Your task to perform on an android device: toggle javascript in the chrome app Image 0: 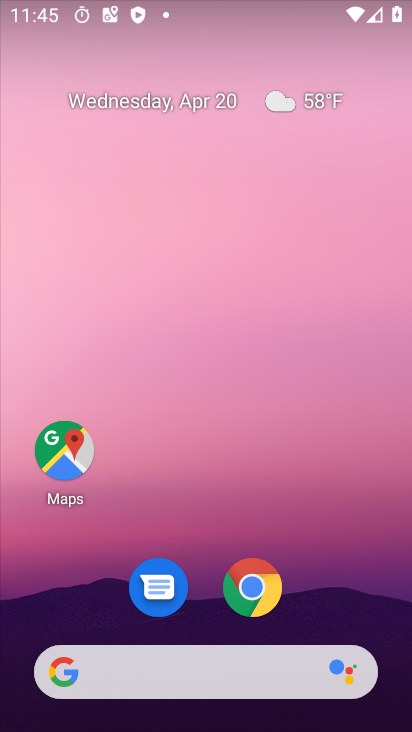
Step 0: click (252, 581)
Your task to perform on an android device: toggle javascript in the chrome app Image 1: 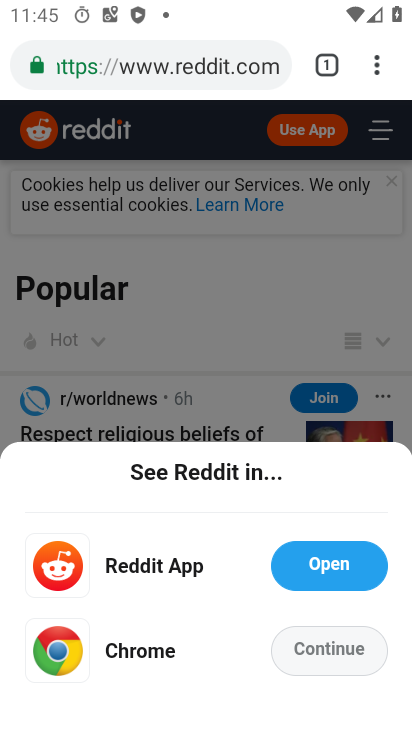
Step 1: click (334, 651)
Your task to perform on an android device: toggle javascript in the chrome app Image 2: 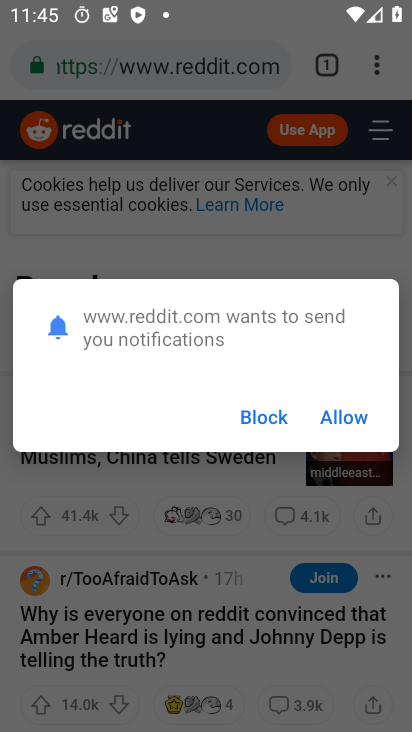
Step 2: click (367, 68)
Your task to perform on an android device: toggle javascript in the chrome app Image 3: 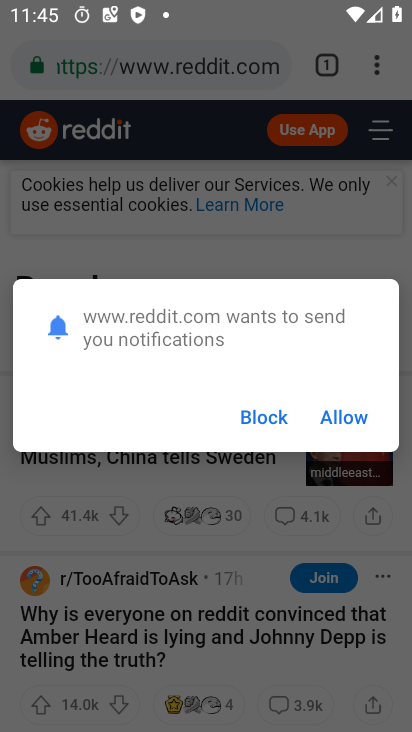
Step 3: click (267, 416)
Your task to perform on an android device: toggle javascript in the chrome app Image 4: 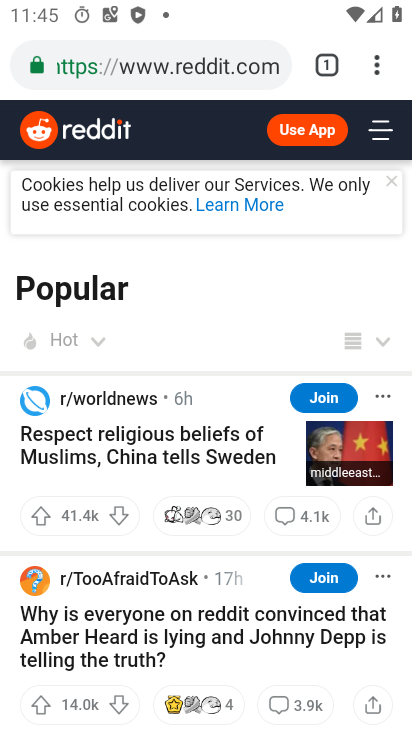
Step 4: click (370, 65)
Your task to perform on an android device: toggle javascript in the chrome app Image 5: 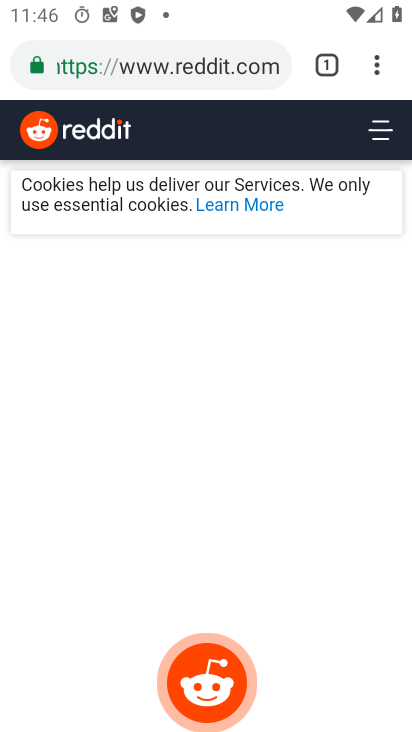
Step 5: click (381, 72)
Your task to perform on an android device: toggle javascript in the chrome app Image 6: 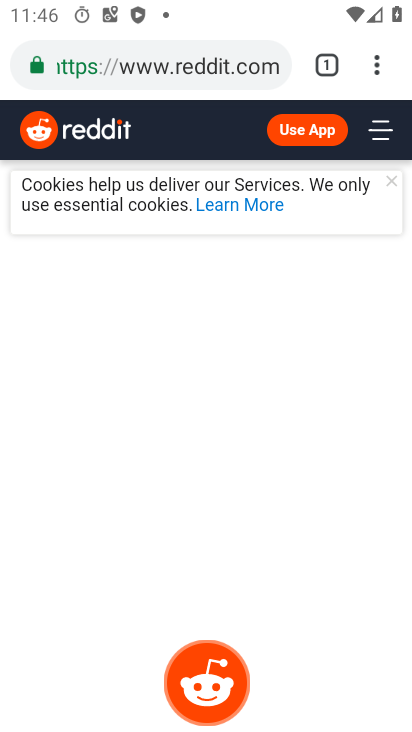
Step 6: click (378, 69)
Your task to perform on an android device: toggle javascript in the chrome app Image 7: 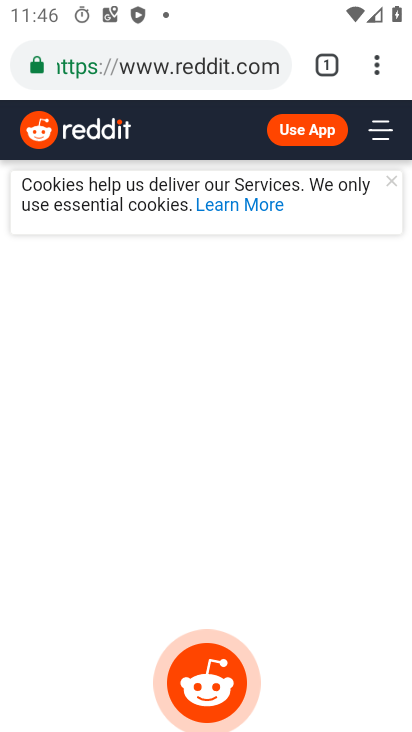
Step 7: click (376, 71)
Your task to perform on an android device: toggle javascript in the chrome app Image 8: 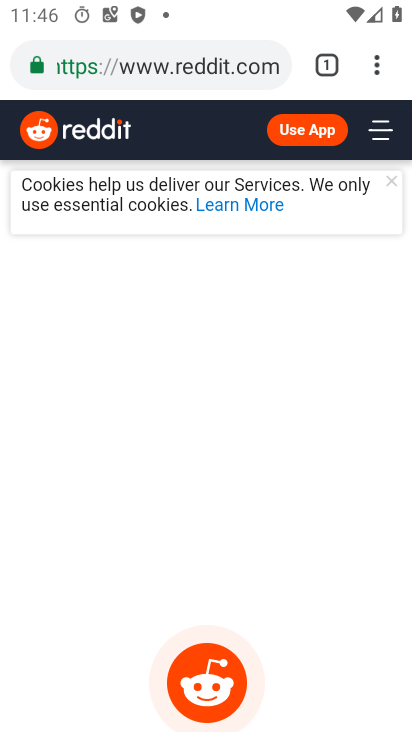
Step 8: click (375, 82)
Your task to perform on an android device: toggle javascript in the chrome app Image 9: 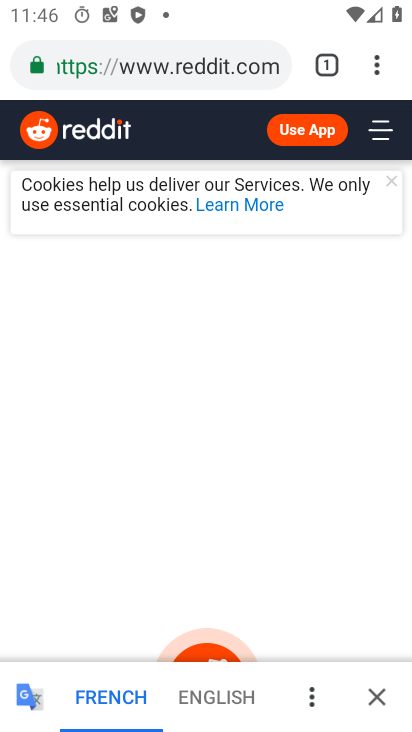
Step 9: click (377, 59)
Your task to perform on an android device: toggle javascript in the chrome app Image 10: 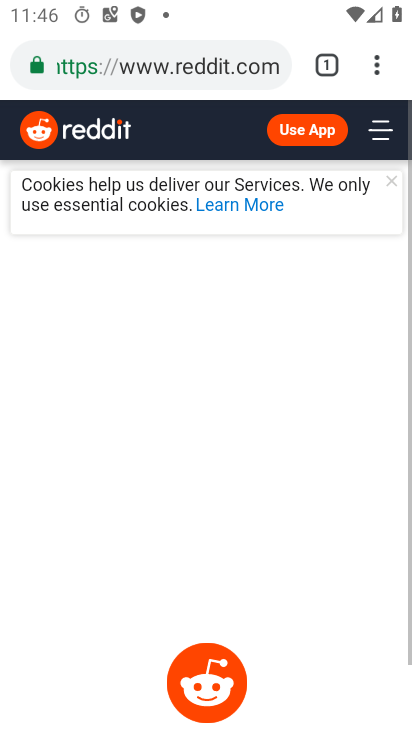
Step 10: click (379, 66)
Your task to perform on an android device: toggle javascript in the chrome app Image 11: 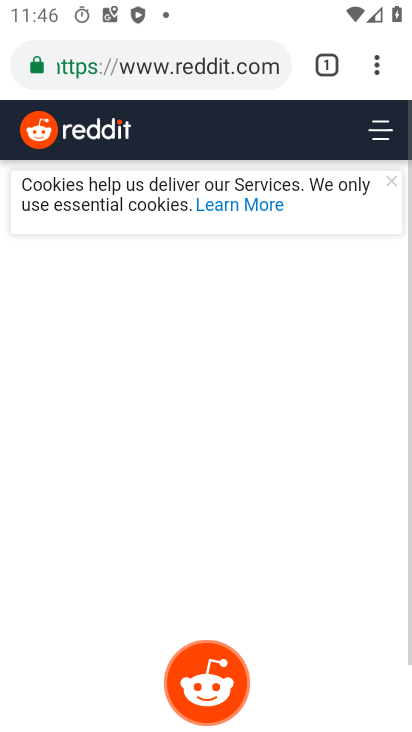
Step 11: click (380, 70)
Your task to perform on an android device: toggle javascript in the chrome app Image 12: 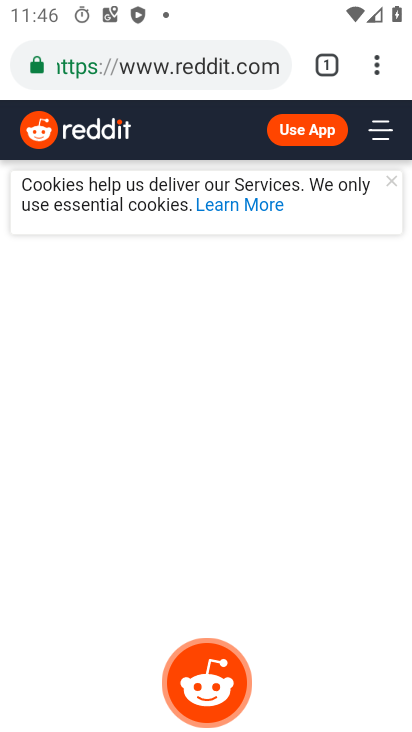
Step 12: click (364, 65)
Your task to perform on an android device: toggle javascript in the chrome app Image 13: 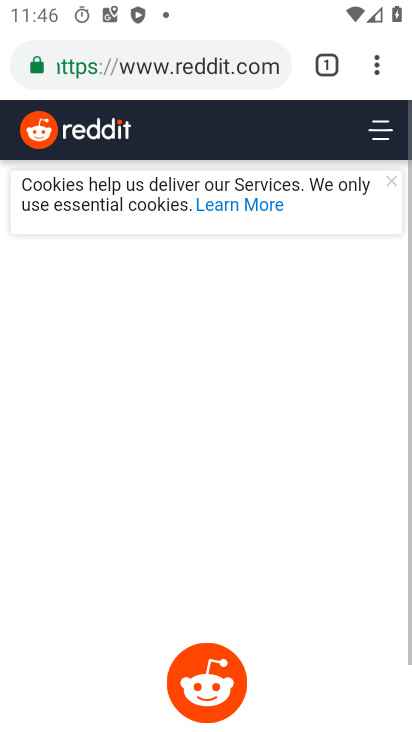
Step 13: click (378, 69)
Your task to perform on an android device: toggle javascript in the chrome app Image 14: 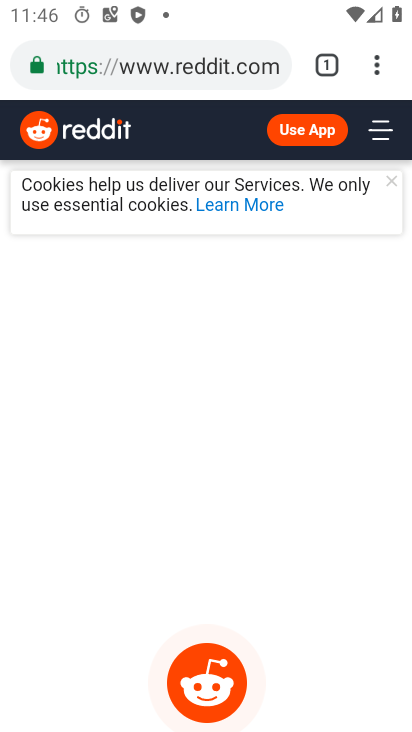
Step 14: click (378, 66)
Your task to perform on an android device: toggle javascript in the chrome app Image 15: 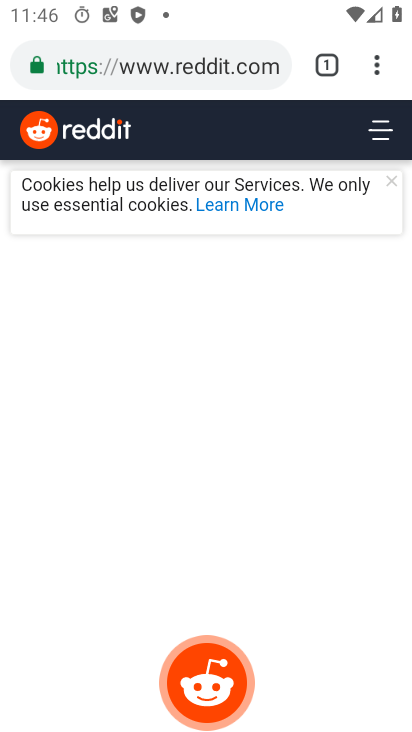
Step 15: click (393, 74)
Your task to perform on an android device: toggle javascript in the chrome app Image 16: 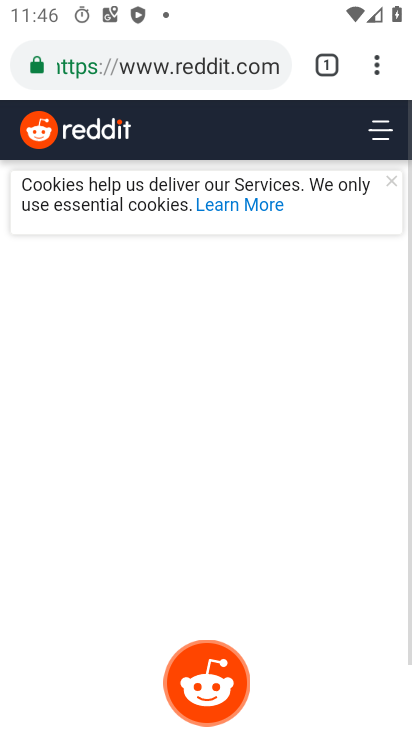
Step 16: click (398, 77)
Your task to perform on an android device: toggle javascript in the chrome app Image 17: 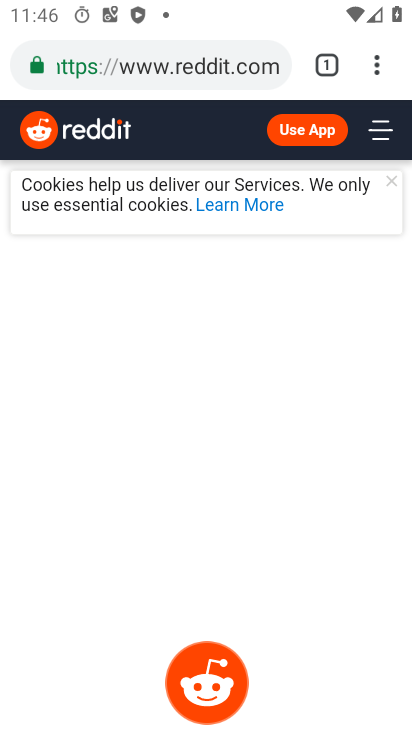
Step 17: click (392, 77)
Your task to perform on an android device: toggle javascript in the chrome app Image 18: 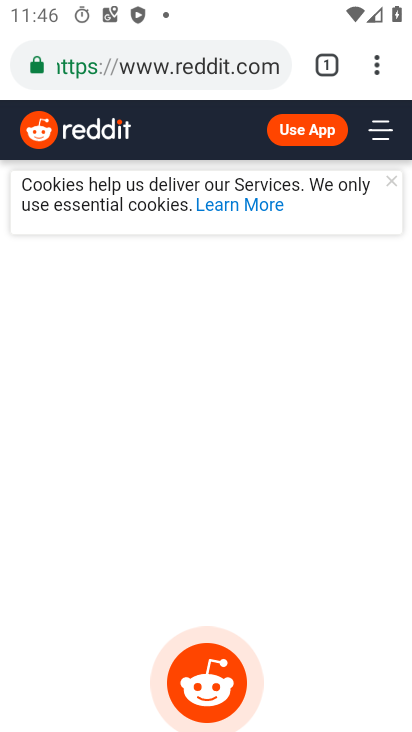
Step 18: click (385, 83)
Your task to perform on an android device: toggle javascript in the chrome app Image 19: 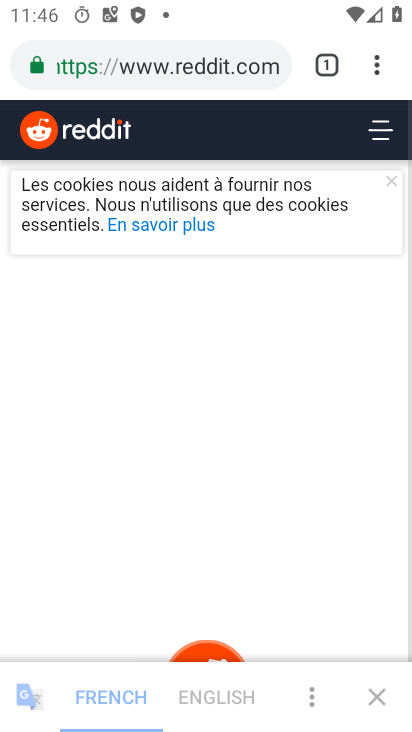
Step 19: click (392, 80)
Your task to perform on an android device: toggle javascript in the chrome app Image 20: 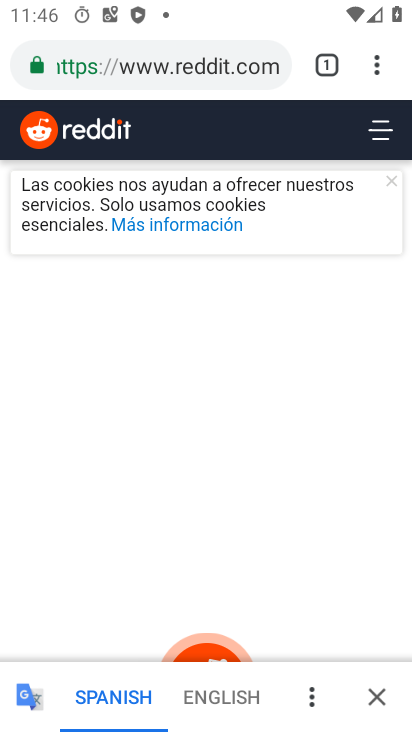
Step 20: click (389, 80)
Your task to perform on an android device: toggle javascript in the chrome app Image 21: 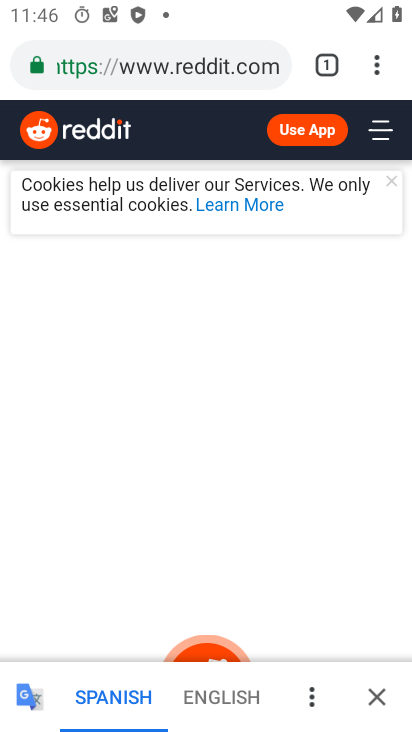
Step 21: click (385, 93)
Your task to perform on an android device: toggle javascript in the chrome app Image 22: 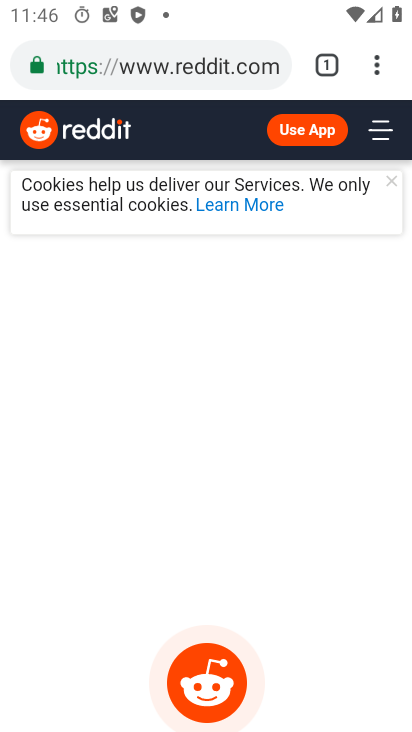
Step 22: click (387, 85)
Your task to perform on an android device: toggle javascript in the chrome app Image 23: 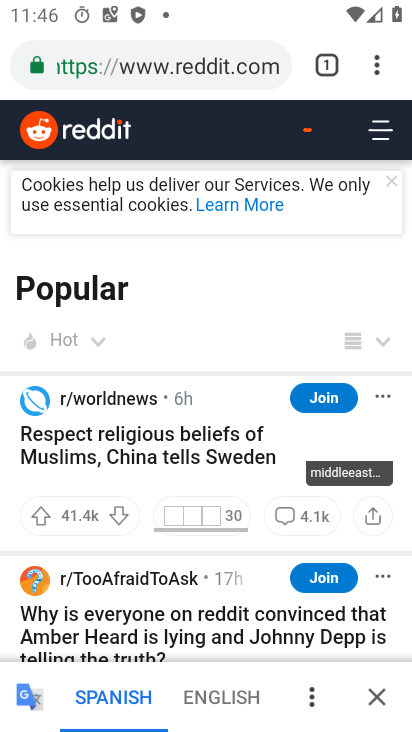
Step 23: click (392, 87)
Your task to perform on an android device: toggle javascript in the chrome app Image 24: 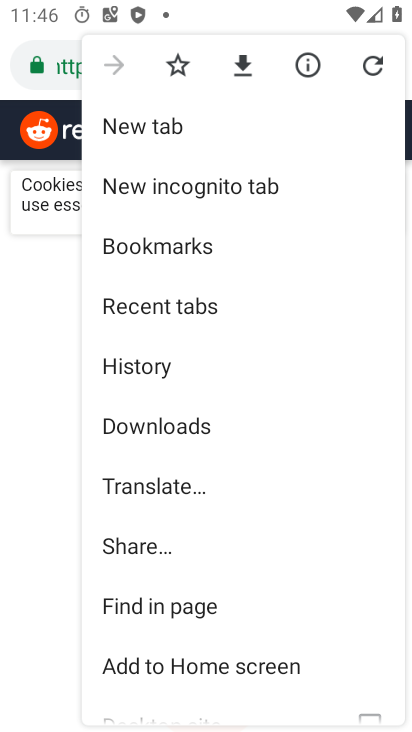
Step 24: drag from (164, 588) to (221, 152)
Your task to perform on an android device: toggle javascript in the chrome app Image 25: 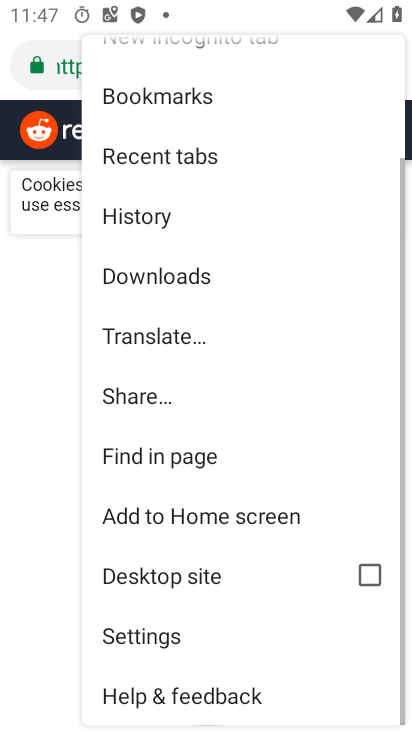
Step 25: click (132, 632)
Your task to perform on an android device: toggle javascript in the chrome app Image 26: 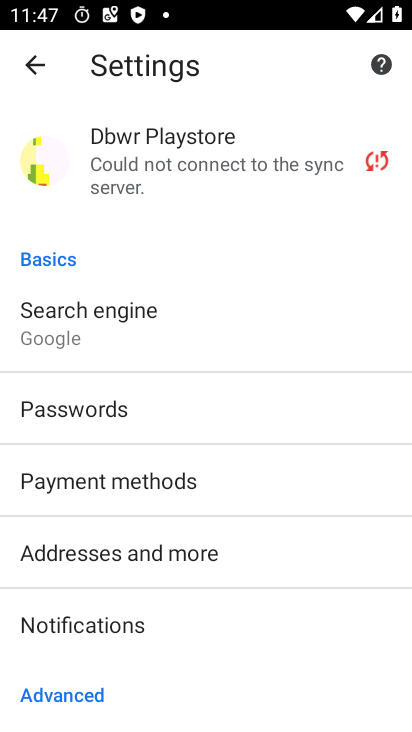
Step 26: drag from (231, 546) to (267, 242)
Your task to perform on an android device: toggle javascript in the chrome app Image 27: 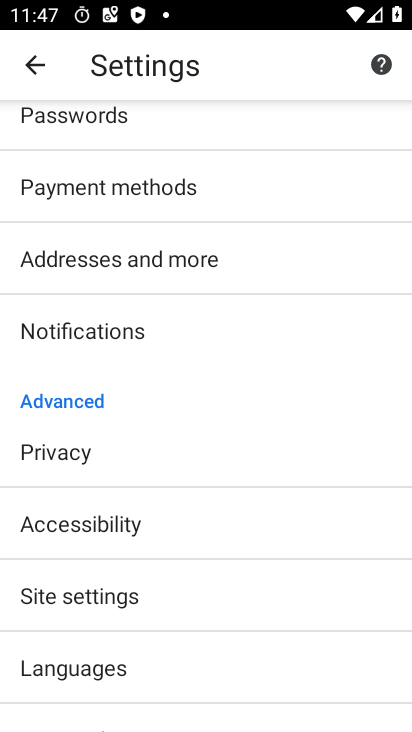
Step 27: click (128, 592)
Your task to perform on an android device: toggle javascript in the chrome app Image 28: 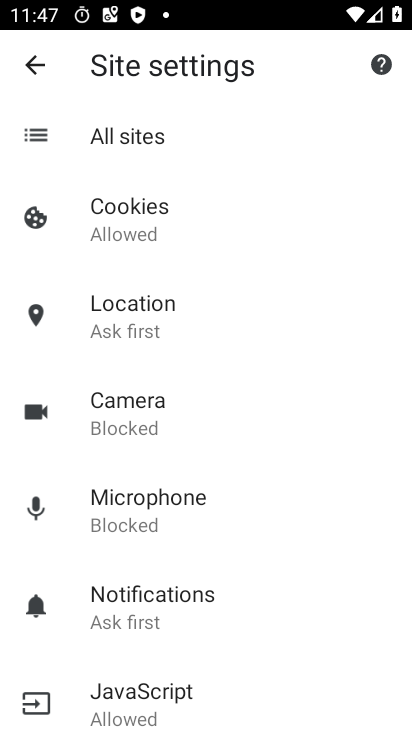
Step 28: drag from (135, 577) to (150, 302)
Your task to perform on an android device: toggle javascript in the chrome app Image 29: 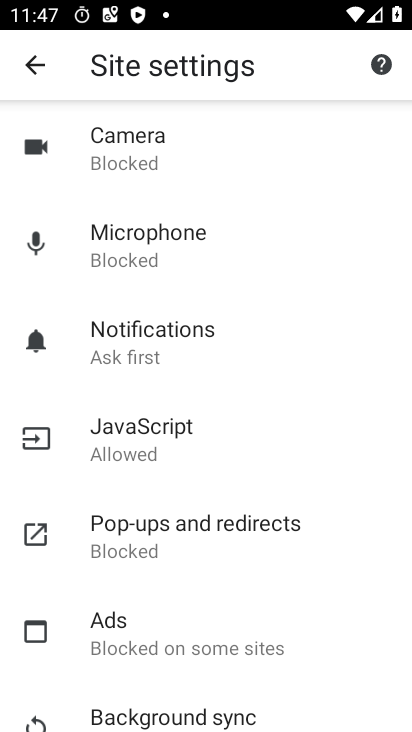
Step 29: click (137, 463)
Your task to perform on an android device: toggle javascript in the chrome app Image 30: 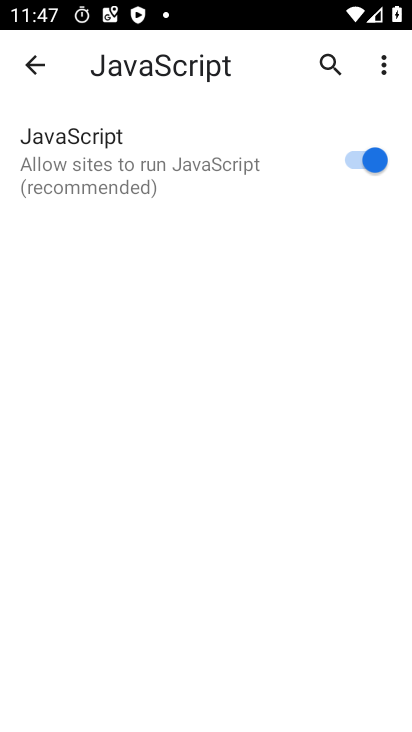
Step 30: click (348, 160)
Your task to perform on an android device: toggle javascript in the chrome app Image 31: 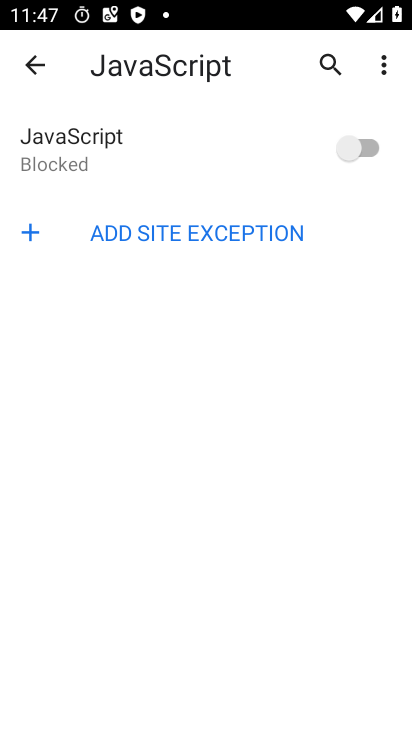
Step 31: task complete